Your task to perform on an android device: Go to calendar. Show me events next week Image 0: 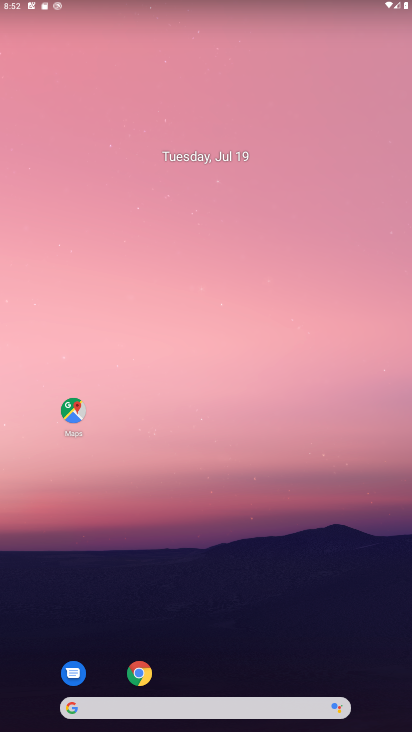
Step 0: drag from (339, 653) to (285, 157)
Your task to perform on an android device: Go to calendar. Show me events next week Image 1: 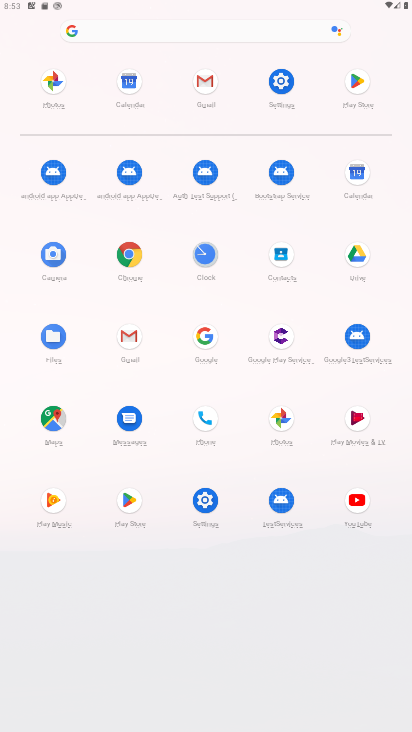
Step 1: click (359, 174)
Your task to perform on an android device: Go to calendar. Show me events next week Image 2: 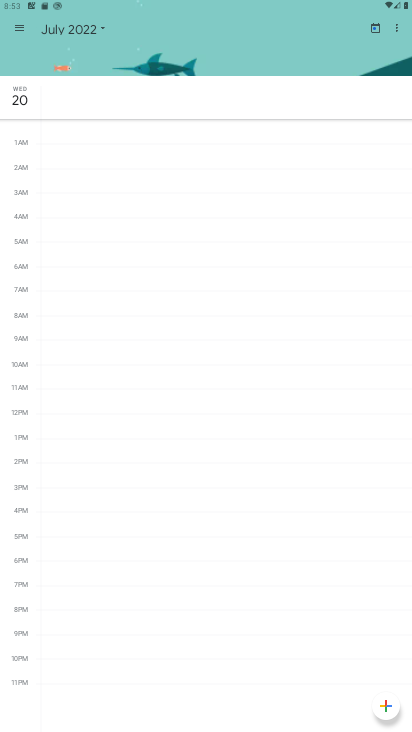
Step 2: click (101, 30)
Your task to perform on an android device: Go to calendar. Show me events next week Image 3: 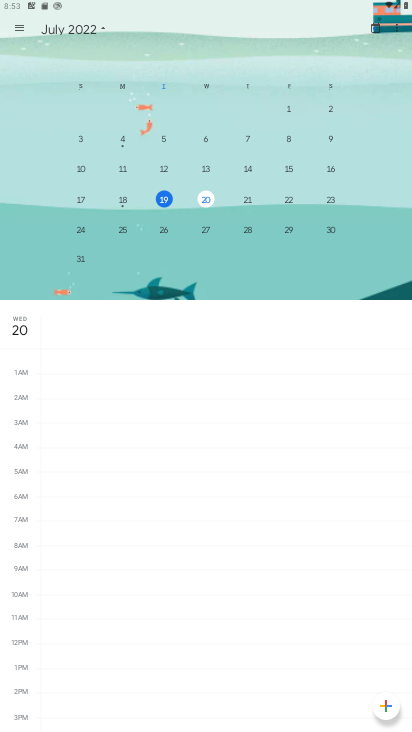
Step 3: click (20, 29)
Your task to perform on an android device: Go to calendar. Show me events next week Image 4: 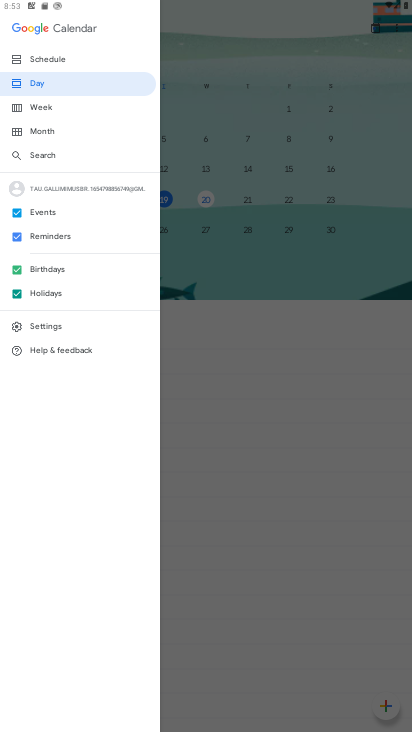
Step 4: click (42, 107)
Your task to perform on an android device: Go to calendar. Show me events next week Image 5: 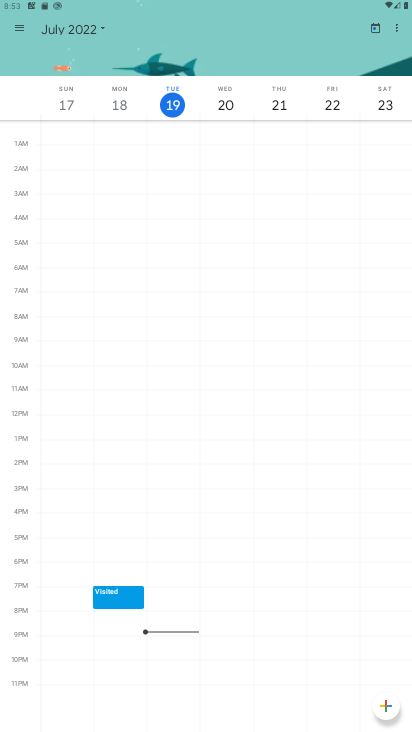
Step 5: click (109, 28)
Your task to perform on an android device: Go to calendar. Show me events next week Image 6: 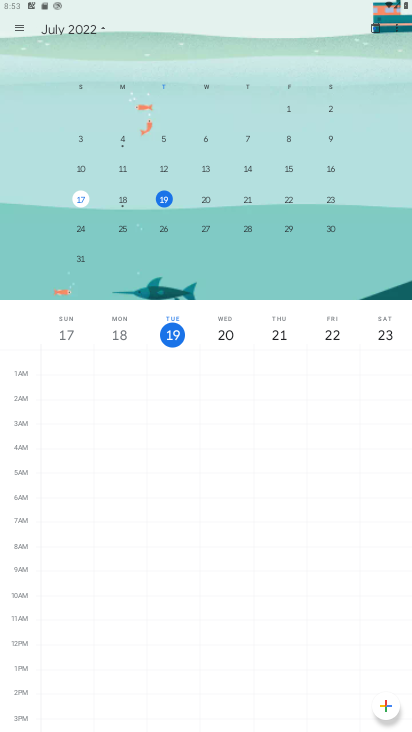
Step 6: click (85, 232)
Your task to perform on an android device: Go to calendar. Show me events next week Image 7: 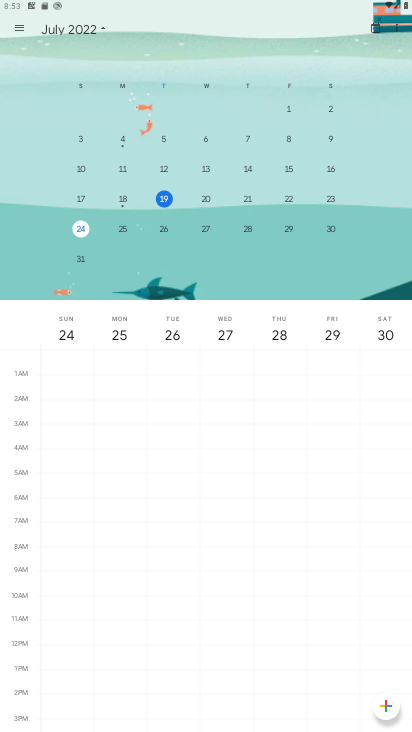
Step 7: task complete